Your task to perform on an android device: What's the weather going to be tomorrow? Image 0: 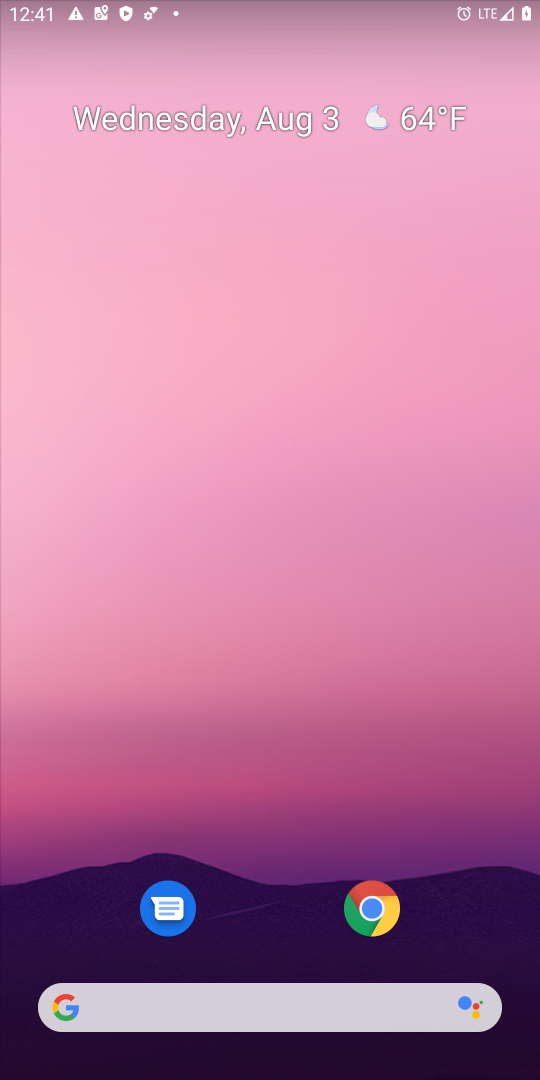
Step 0: drag from (286, 851) to (316, 111)
Your task to perform on an android device: What's the weather going to be tomorrow? Image 1: 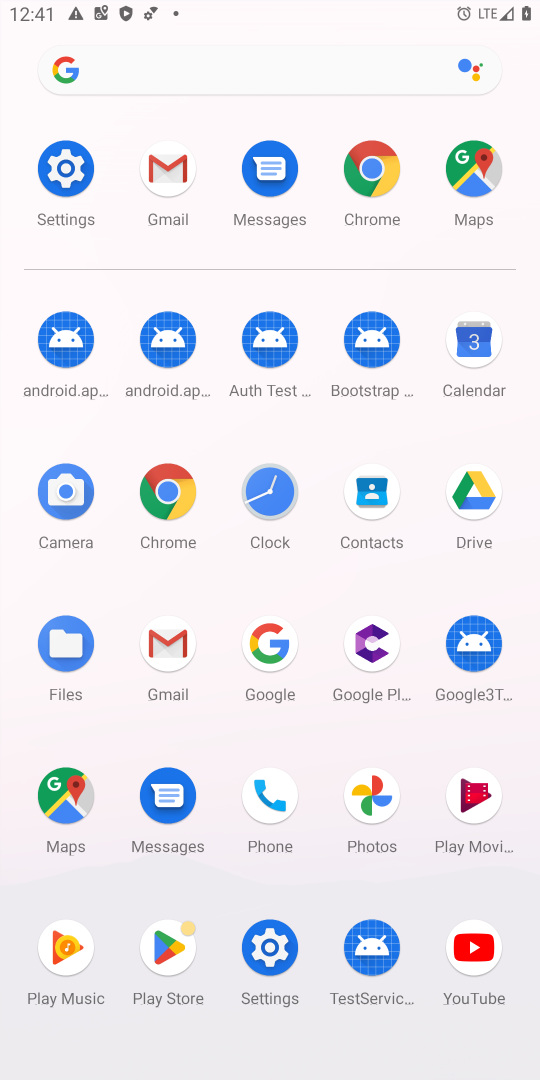
Step 1: click (152, 502)
Your task to perform on an android device: What's the weather going to be tomorrow? Image 2: 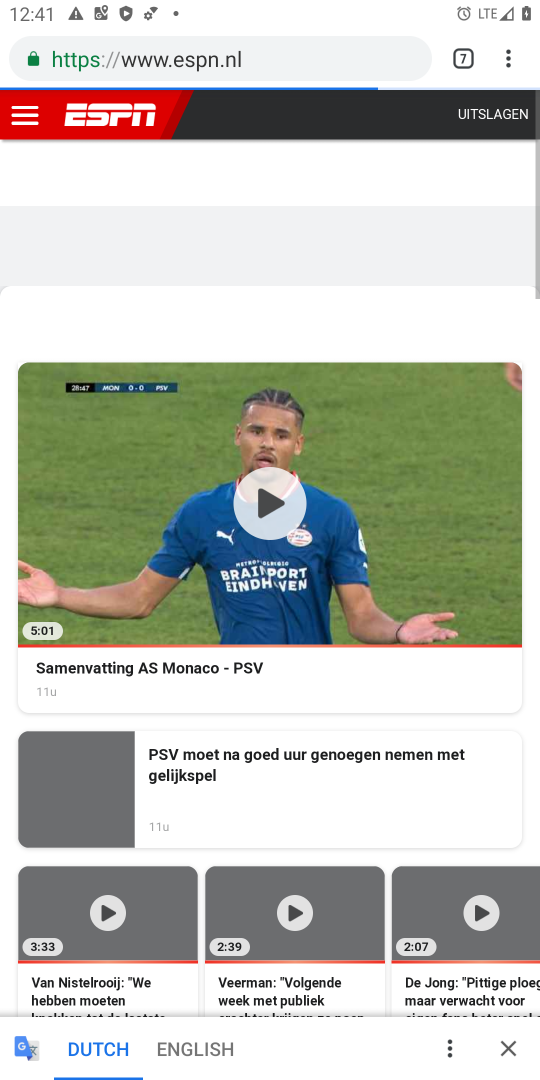
Step 2: click (462, 55)
Your task to perform on an android device: What's the weather going to be tomorrow? Image 3: 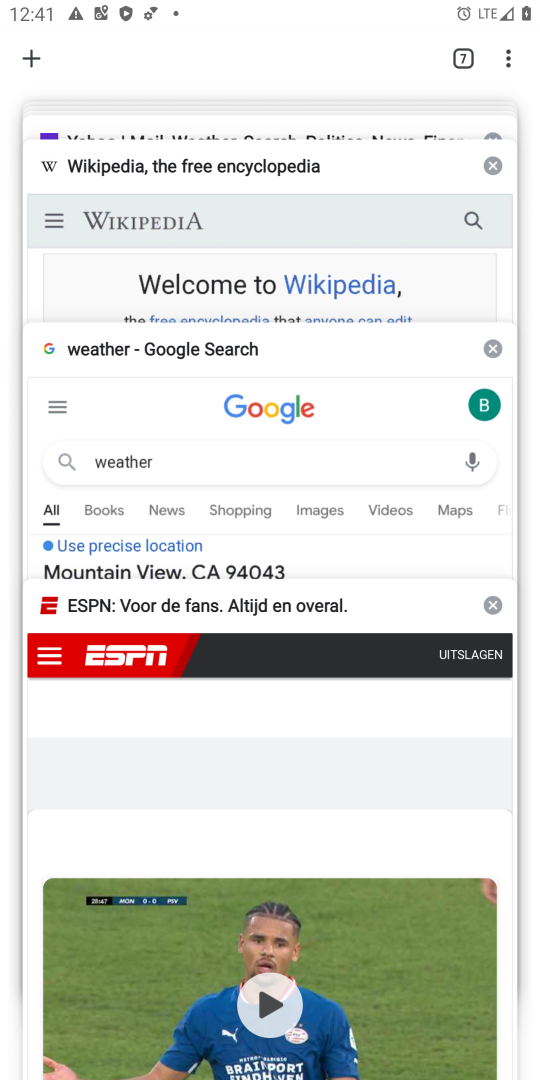
Step 3: click (179, 425)
Your task to perform on an android device: What's the weather going to be tomorrow? Image 4: 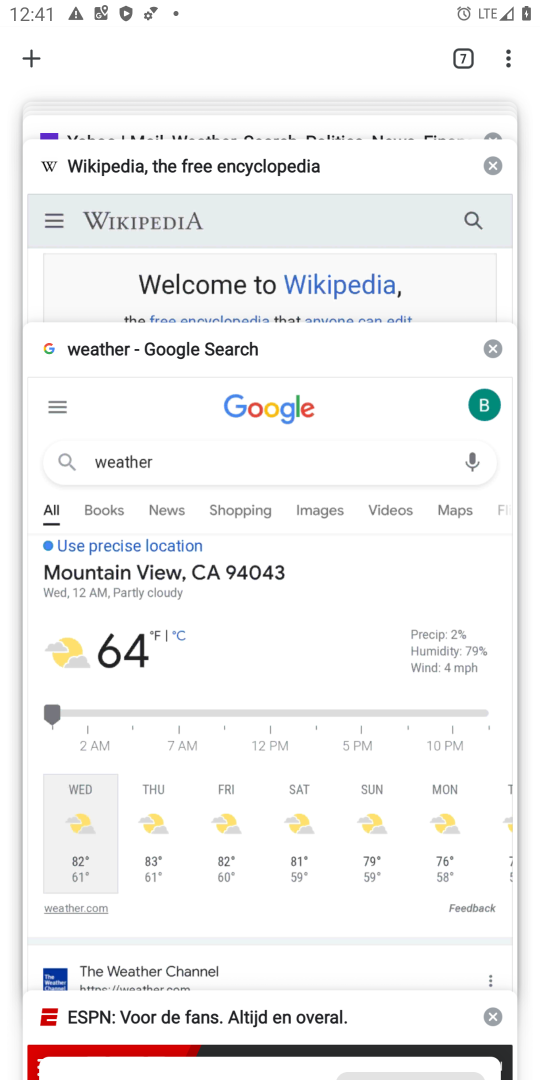
Step 4: task complete